Your task to perform on an android device: Open notification settings Image 0: 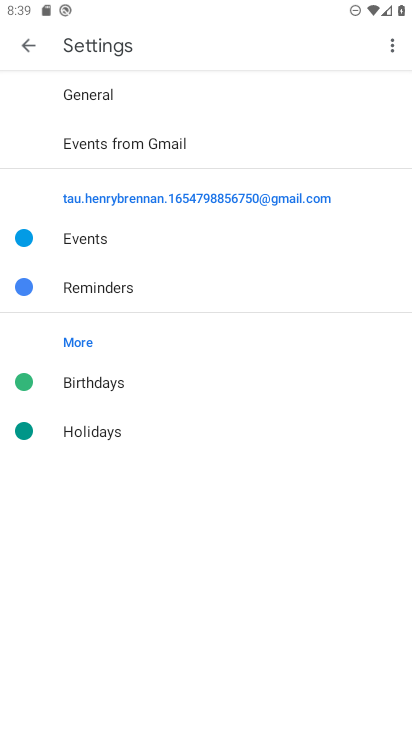
Step 0: press home button
Your task to perform on an android device: Open notification settings Image 1: 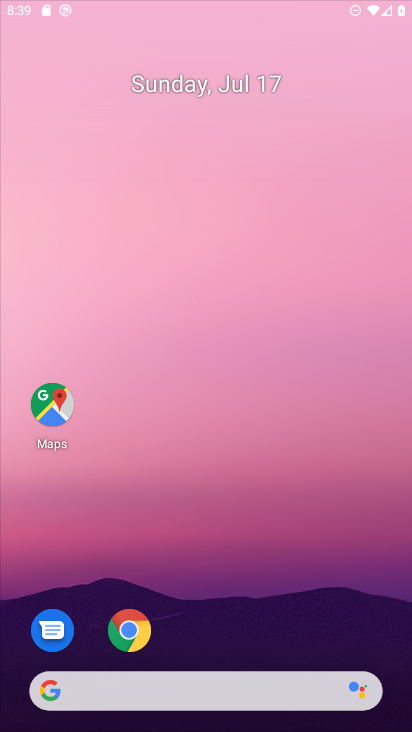
Step 1: drag from (374, 631) to (196, 43)
Your task to perform on an android device: Open notification settings Image 2: 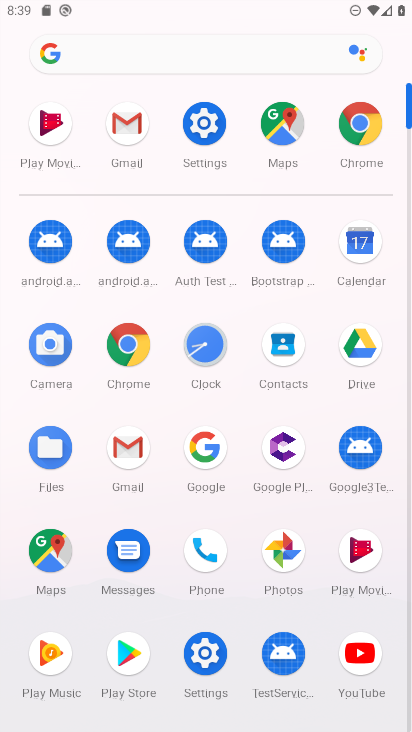
Step 2: click (204, 658)
Your task to perform on an android device: Open notification settings Image 3: 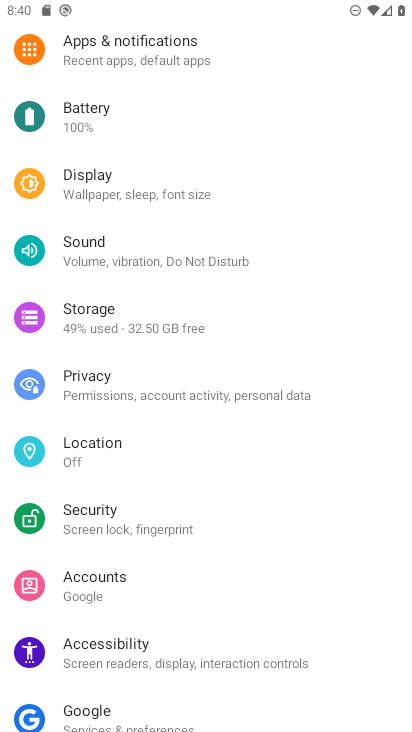
Step 3: click (158, 52)
Your task to perform on an android device: Open notification settings Image 4: 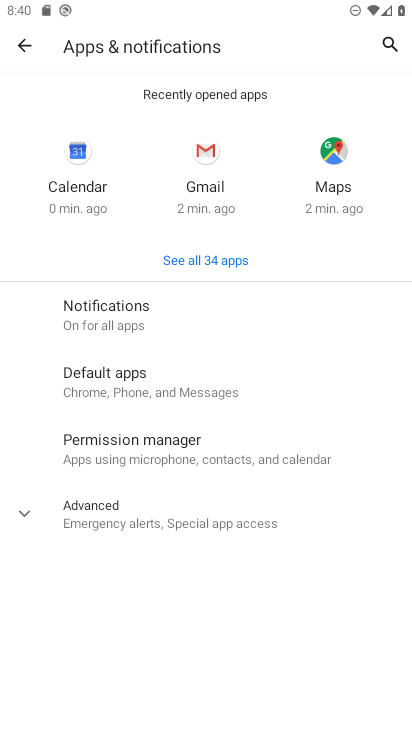
Step 4: click (193, 325)
Your task to perform on an android device: Open notification settings Image 5: 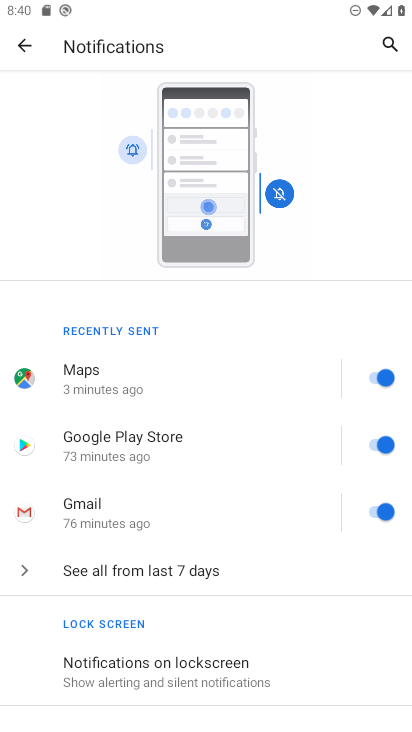
Step 5: task complete